Your task to perform on an android device: check storage Image 0: 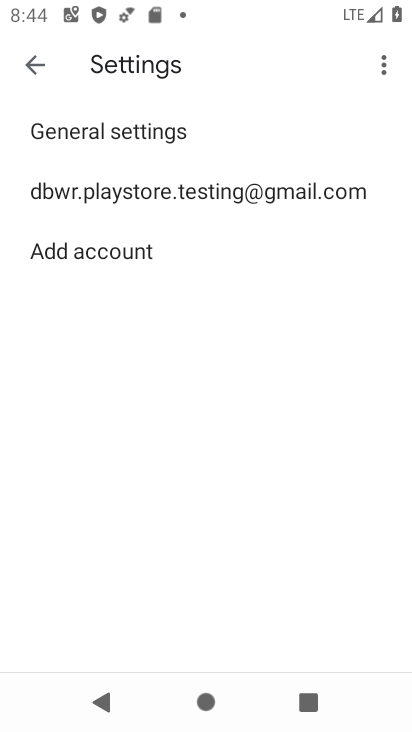
Step 0: press home button
Your task to perform on an android device: check storage Image 1: 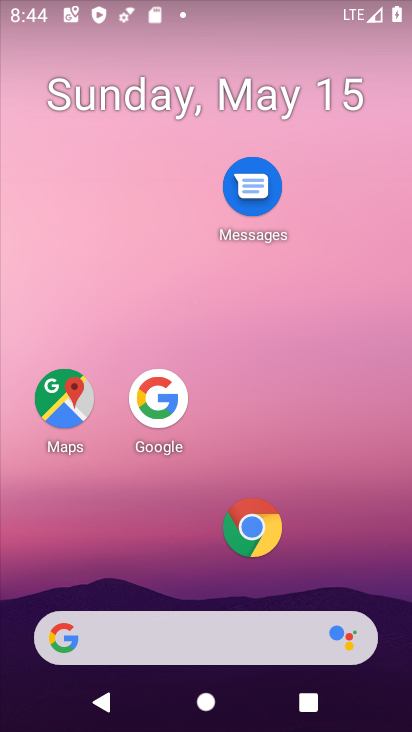
Step 1: drag from (196, 638) to (314, 60)
Your task to perform on an android device: check storage Image 2: 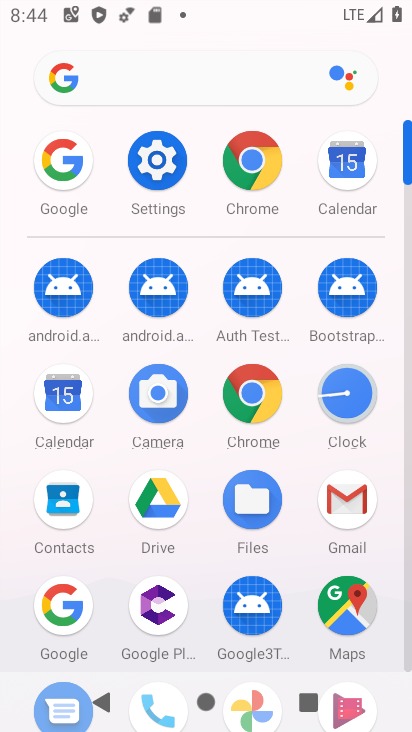
Step 2: click (164, 169)
Your task to perform on an android device: check storage Image 3: 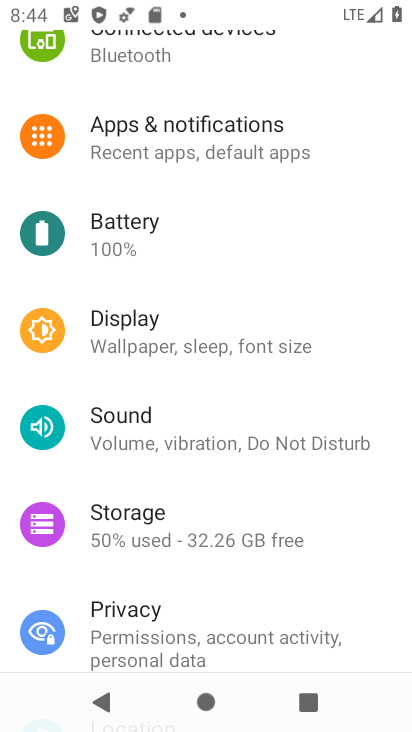
Step 3: click (155, 525)
Your task to perform on an android device: check storage Image 4: 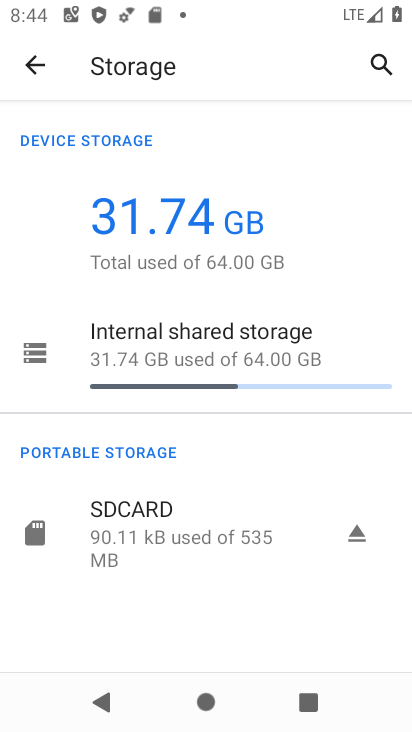
Step 4: task complete